Your task to perform on an android device: check the backup settings in the google photos Image 0: 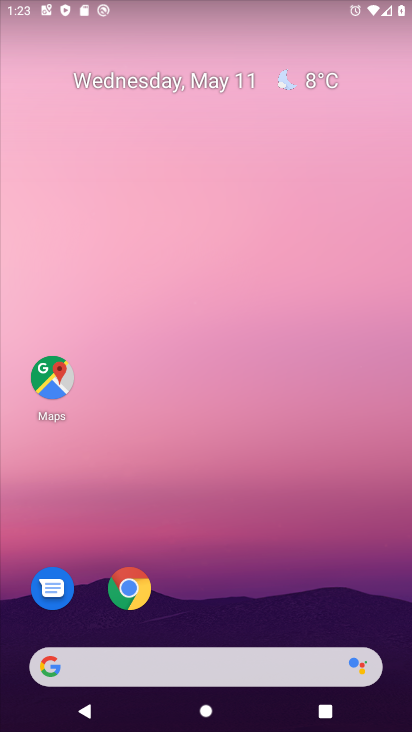
Step 0: drag from (311, 594) to (280, 51)
Your task to perform on an android device: check the backup settings in the google photos Image 1: 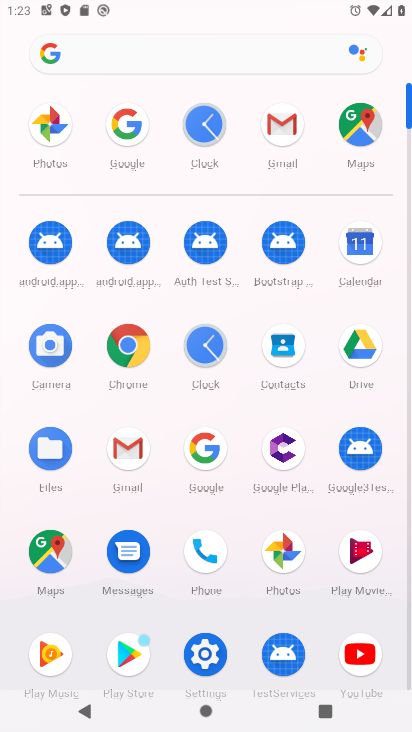
Step 1: click (51, 129)
Your task to perform on an android device: check the backup settings in the google photos Image 2: 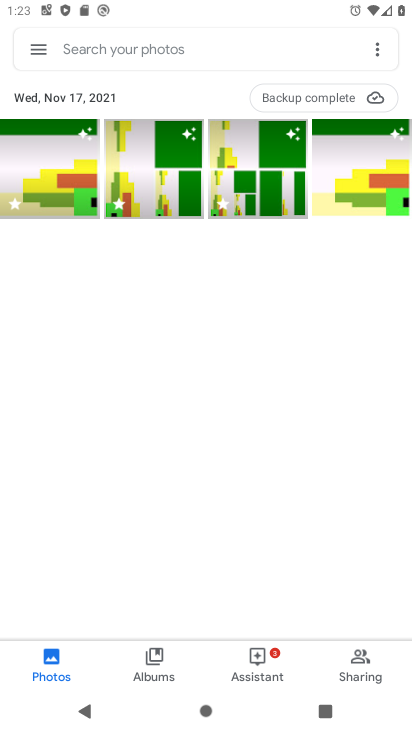
Step 2: click (39, 51)
Your task to perform on an android device: check the backup settings in the google photos Image 3: 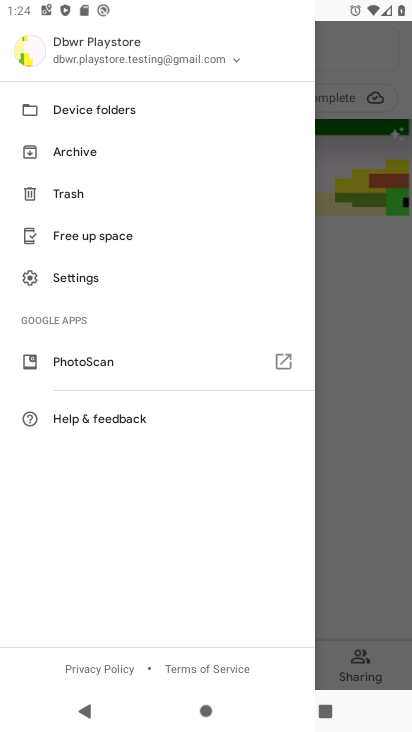
Step 3: click (80, 280)
Your task to perform on an android device: check the backup settings in the google photos Image 4: 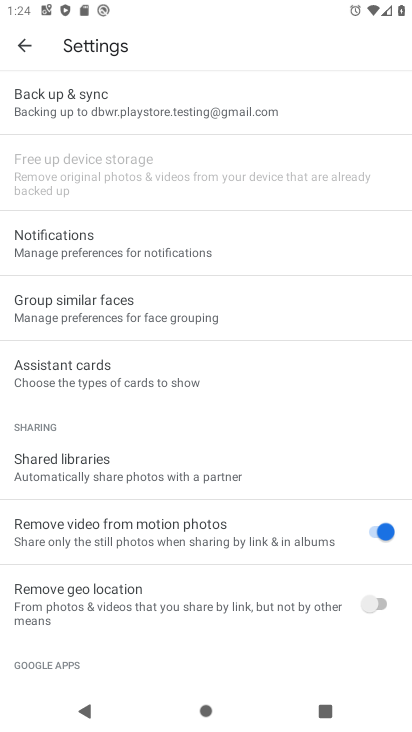
Step 4: click (95, 113)
Your task to perform on an android device: check the backup settings in the google photos Image 5: 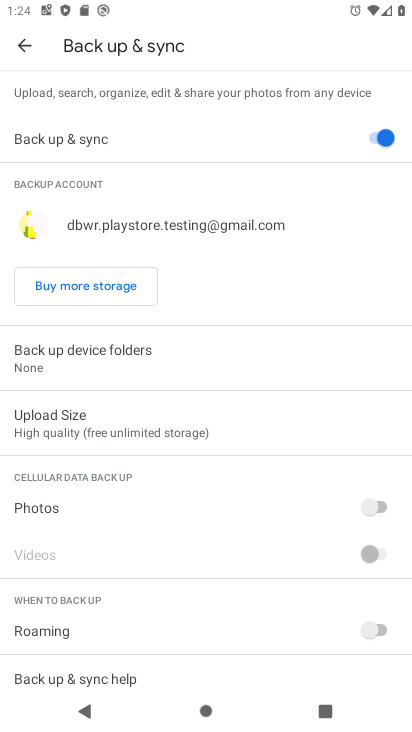
Step 5: task complete